Your task to perform on an android device: Go to battery settings Image 0: 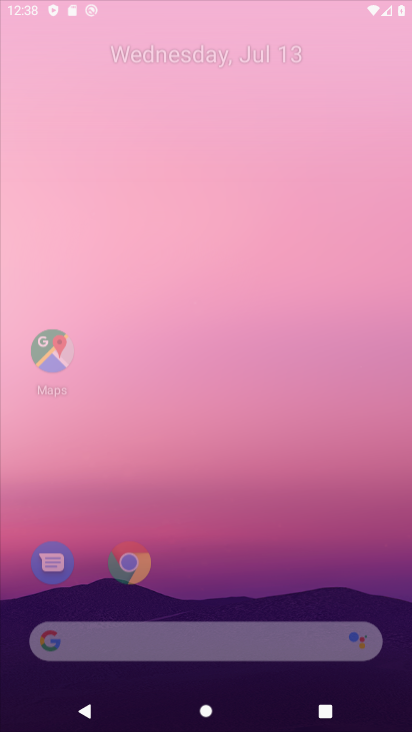
Step 0: click (214, 9)
Your task to perform on an android device: Go to battery settings Image 1: 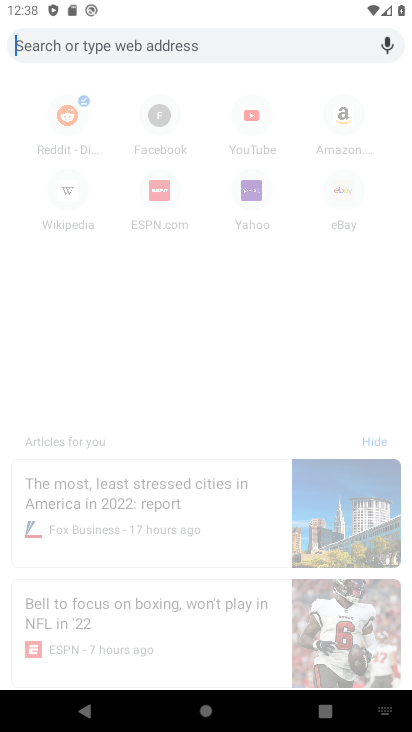
Step 1: drag from (172, 543) to (225, 205)
Your task to perform on an android device: Go to battery settings Image 2: 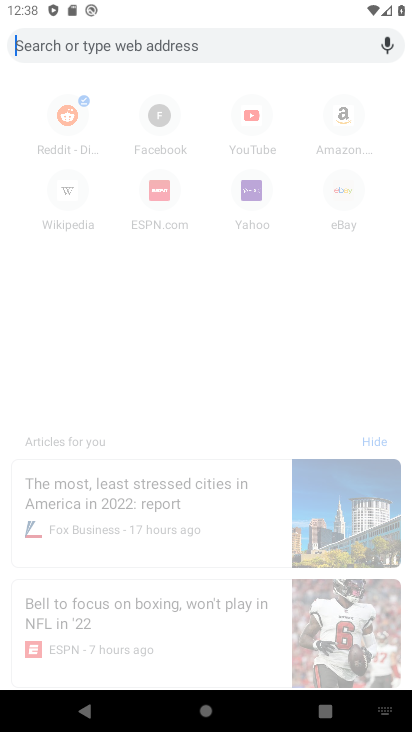
Step 2: press home button
Your task to perform on an android device: Go to battery settings Image 3: 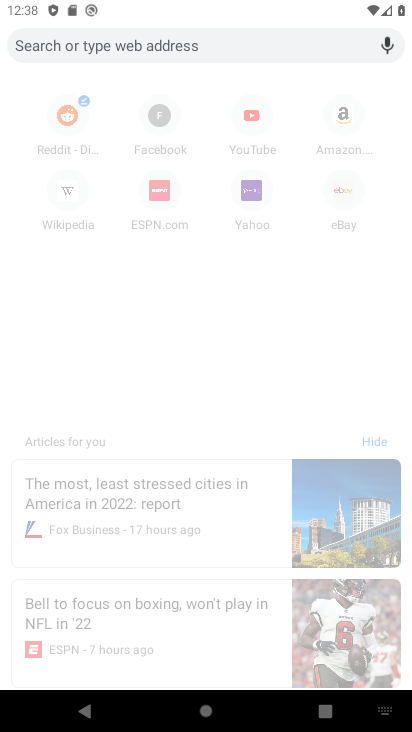
Step 3: drag from (218, 309) to (231, 129)
Your task to perform on an android device: Go to battery settings Image 4: 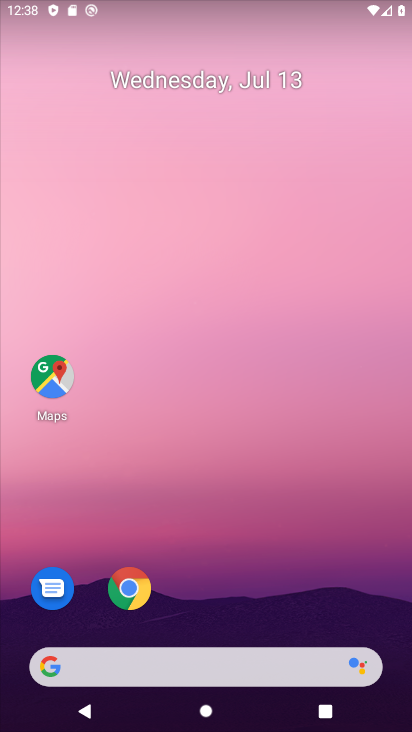
Step 4: drag from (191, 602) to (252, 71)
Your task to perform on an android device: Go to battery settings Image 5: 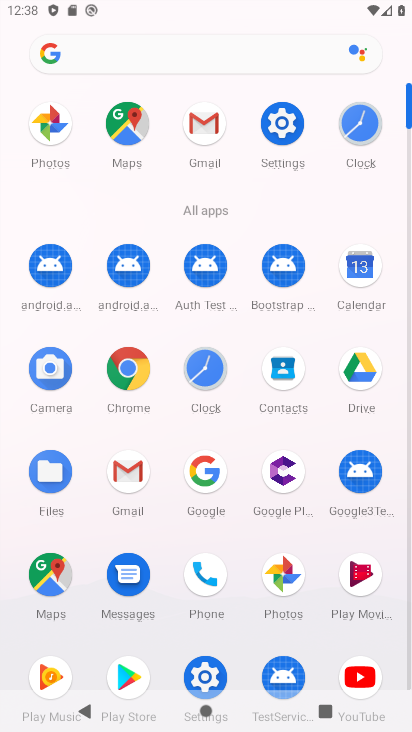
Step 5: click (208, 671)
Your task to perform on an android device: Go to battery settings Image 6: 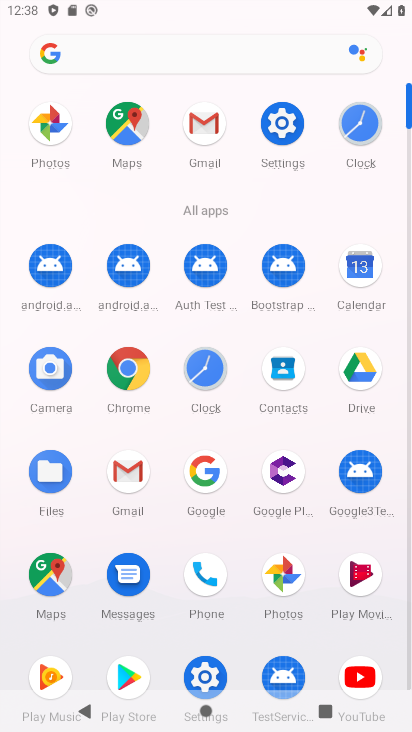
Step 6: click (209, 669)
Your task to perform on an android device: Go to battery settings Image 7: 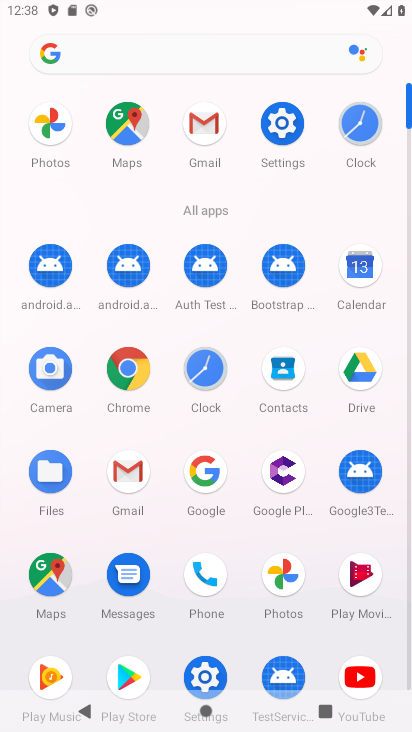
Step 7: click (200, 661)
Your task to perform on an android device: Go to battery settings Image 8: 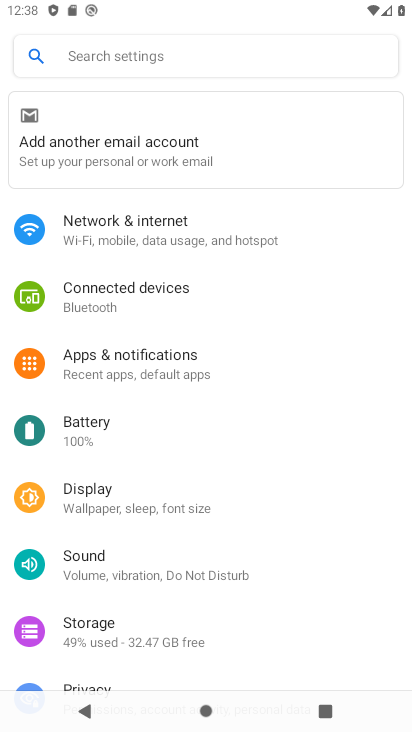
Step 8: click (108, 423)
Your task to perform on an android device: Go to battery settings Image 9: 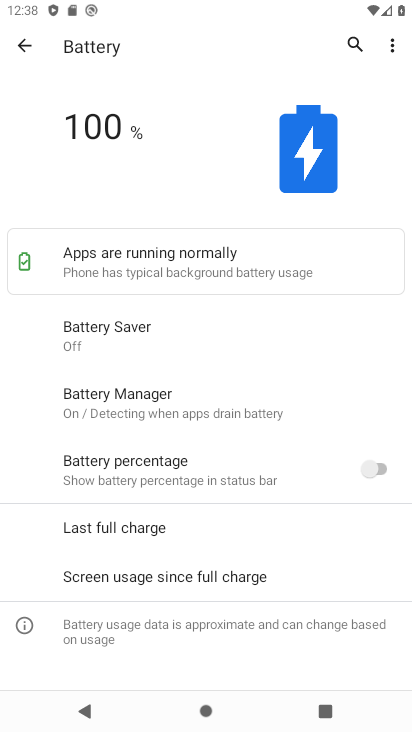
Step 9: task complete